Your task to perform on an android device: Open settings on Google Maps Image 0: 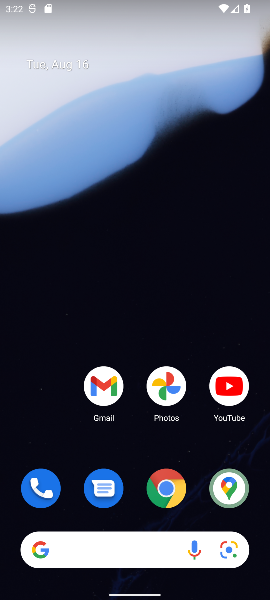
Step 0: click (230, 489)
Your task to perform on an android device: Open settings on Google Maps Image 1: 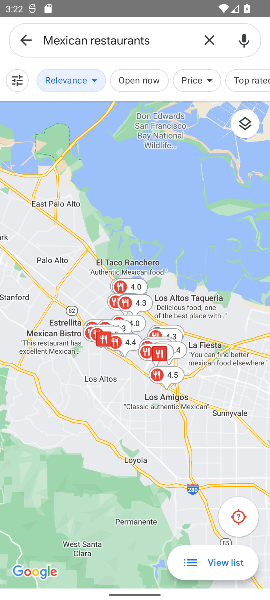
Step 1: task complete